Your task to perform on an android device: turn on airplane mode Image 0: 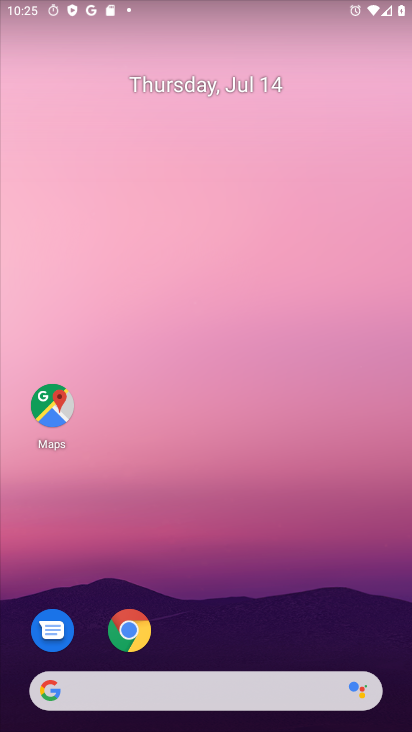
Step 0: drag from (122, 198) to (190, 7)
Your task to perform on an android device: turn on airplane mode Image 1: 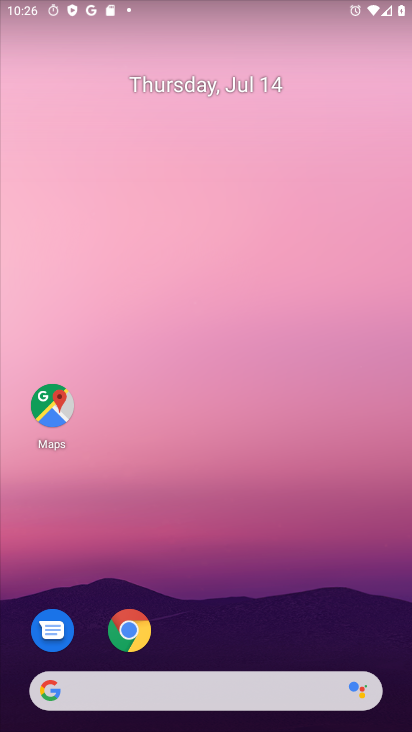
Step 1: drag from (57, 380) to (82, 250)
Your task to perform on an android device: turn on airplane mode Image 2: 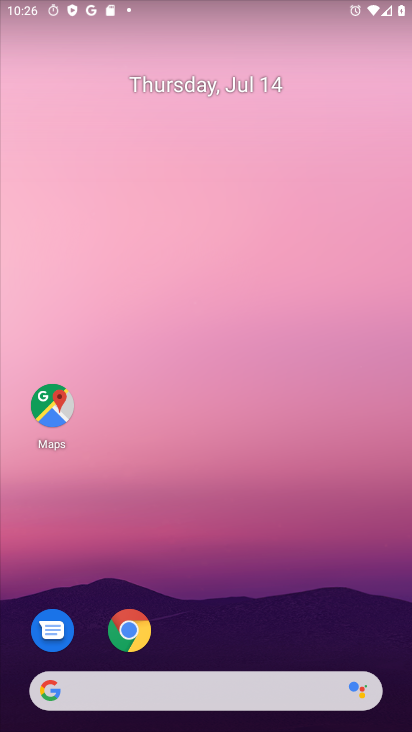
Step 2: drag from (43, 601) to (151, 128)
Your task to perform on an android device: turn on airplane mode Image 3: 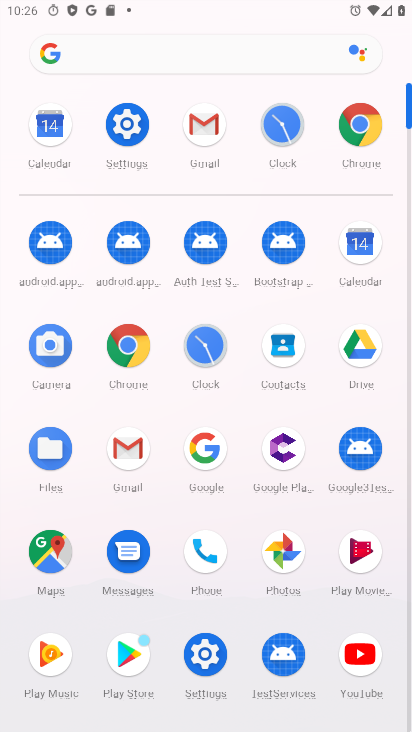
Step 3: click (203, 669)
Your task to perform on an android device: turn on airplane mode Image 4: 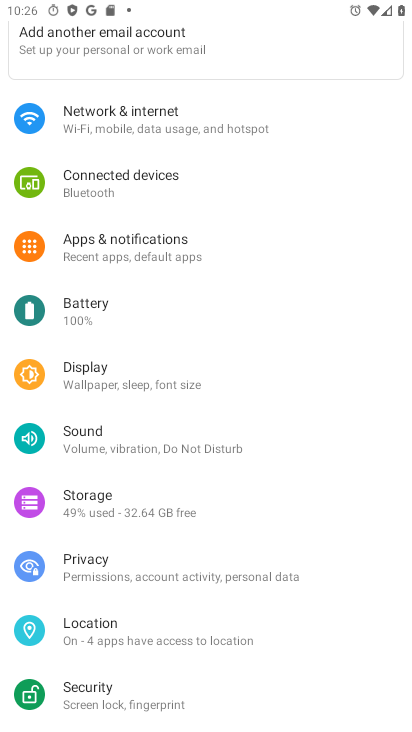
Step 4: click (100, 99)
Your task to perform on an android device: turn on airplane mode Image 5: 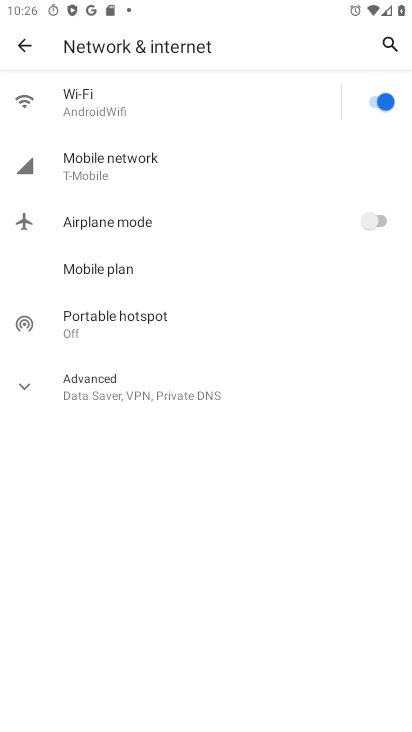
Step 5: click (366, 220)
Your task to perform on an android device: turn on airplane mode Image 6: 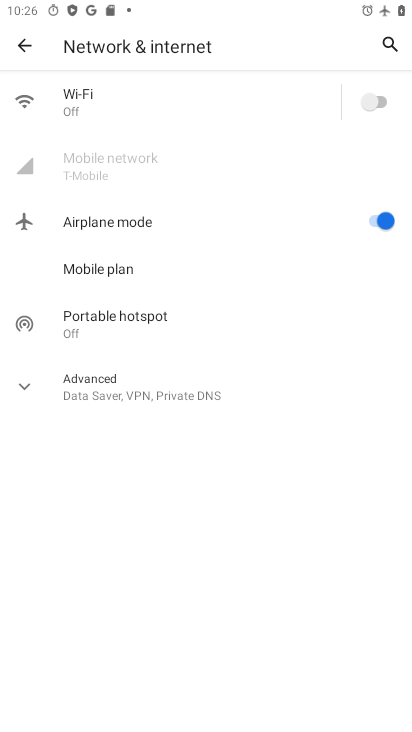
Step 6: task complete